Your task to perform on an android device: Open Google Chrome and open the bookmarks view Image 0: 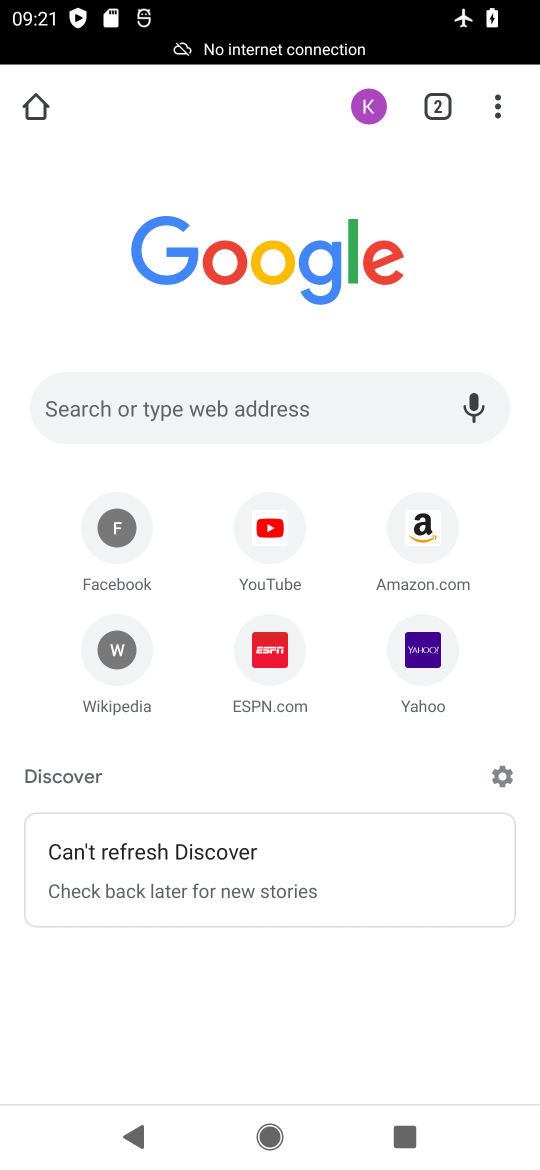
Step 0: click (487, 114)
Your task to perform on an android device: Open Google Chrome and open the bookmarks view Image 1: 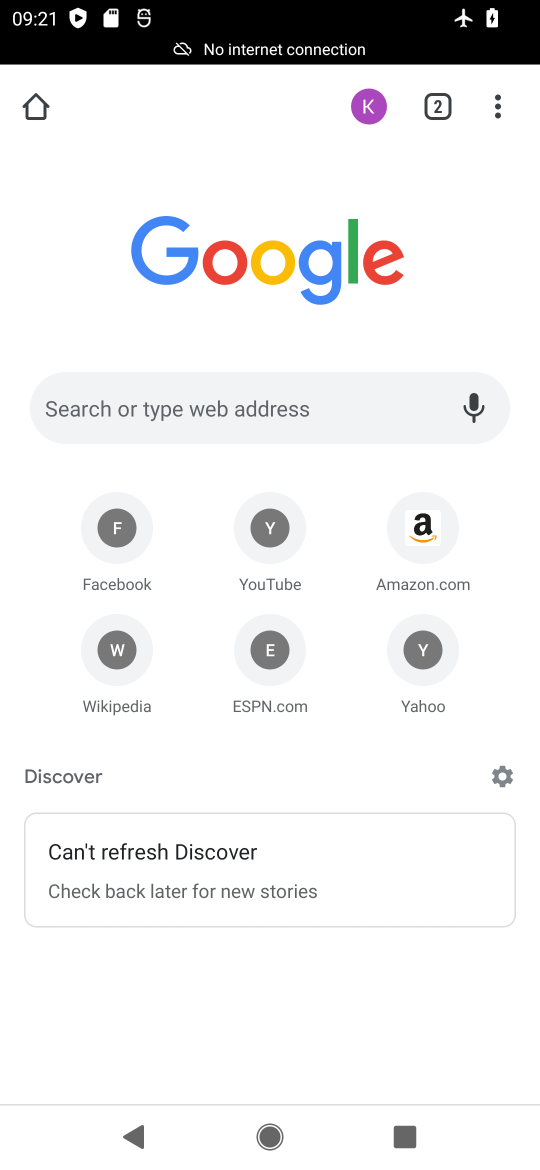
Step 1: click (481, 108)
Your task to perform on an android device: Open Google Chrome and open the bookmarks view Image 2: 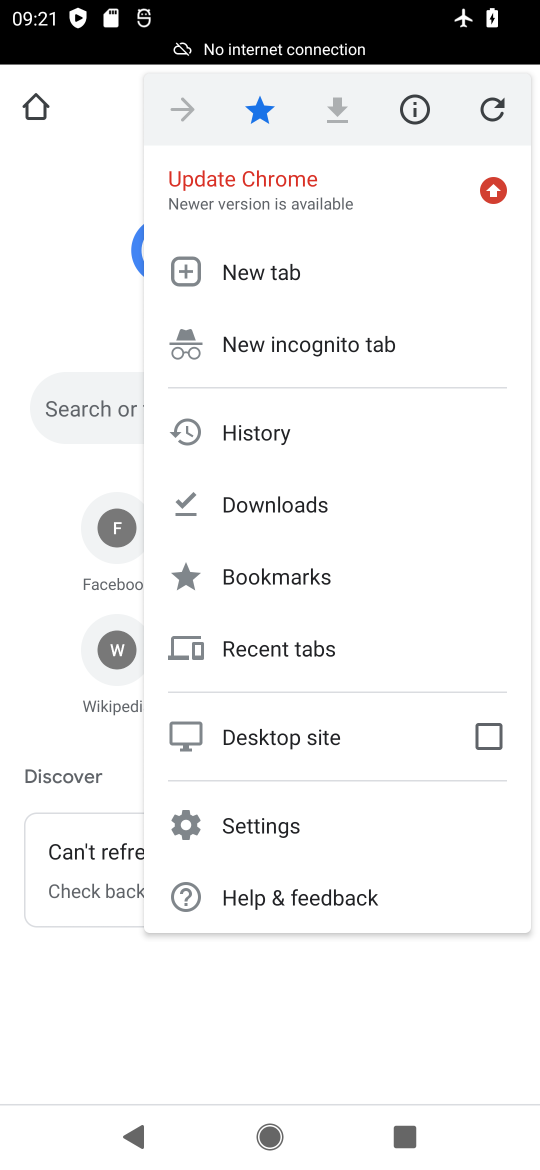
Step 2: click (303, 577)
Your task to perform on an android device: Open Google Chrome and open the bookmarks view Image 3: 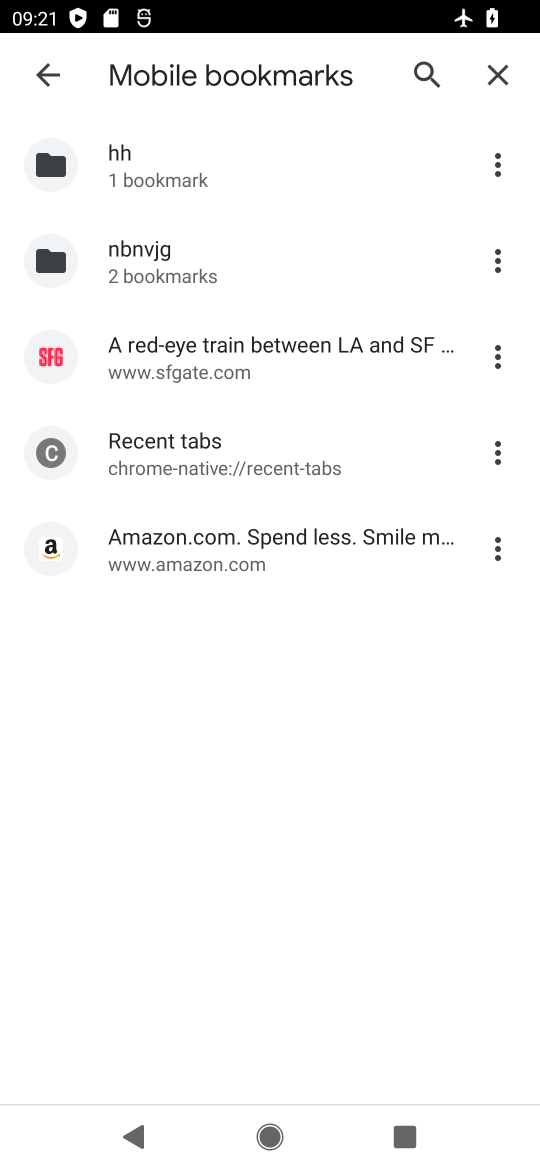
Step 3: task complete